Your task to perform on an android device: Open the stopwatch Image 0: 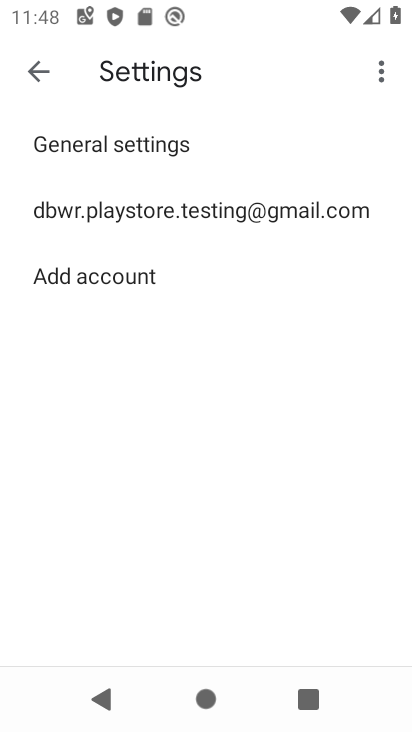
Step 0: press home button
Your task to perform on an android device: Open the stopwatch Image 1: 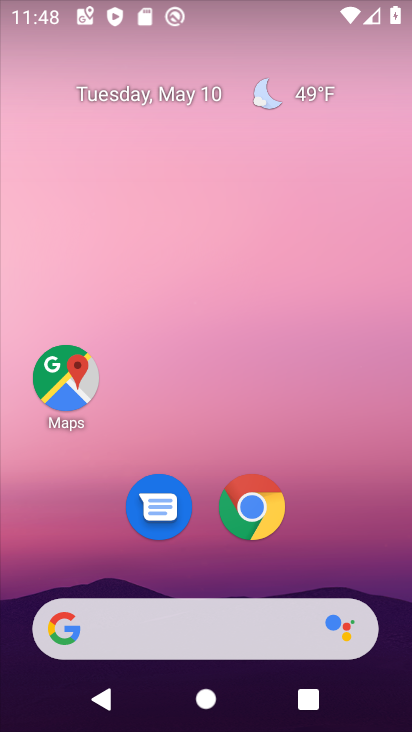
Step 1: drag from (211, 564) to (205, 41)
Your task to perform on an android device: Open the stopwatch Image 2: 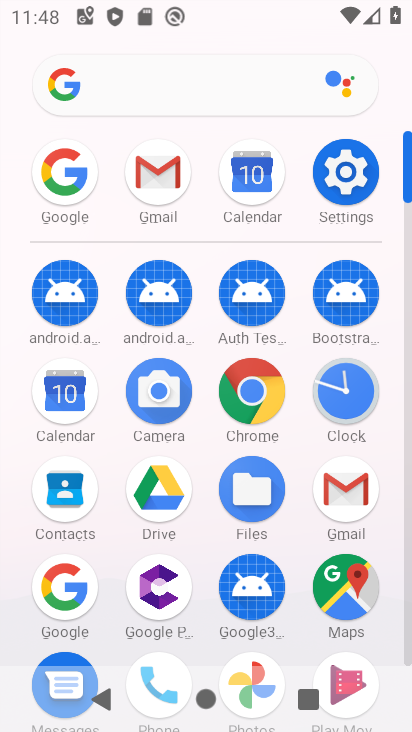
Step 2: click (347, 393)
Your task to perform on an android device: Open the stopwatch Image 3: 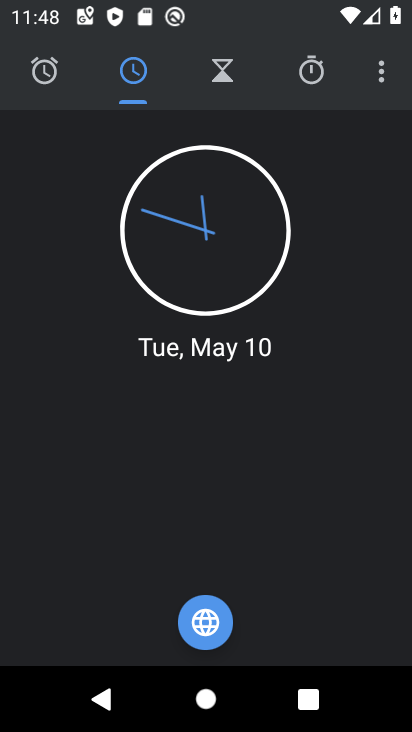
Step 3: click (371, 73)
Your task to perform on an android device: Open the stopwatch Image 4: 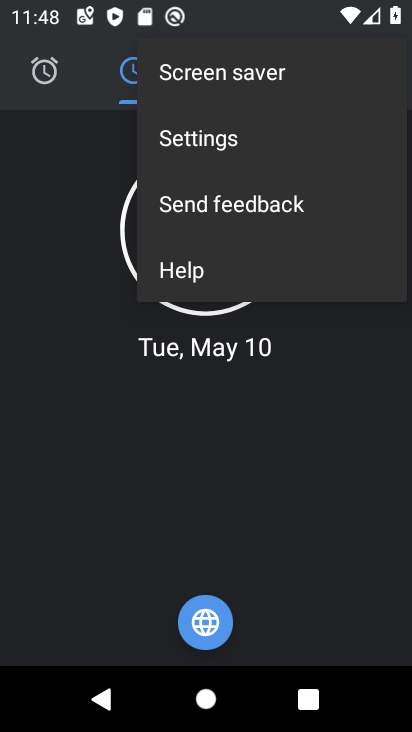
Step 4: click (207, 133)
Your task to perform on an android device: Open the stopwatch Image 5: 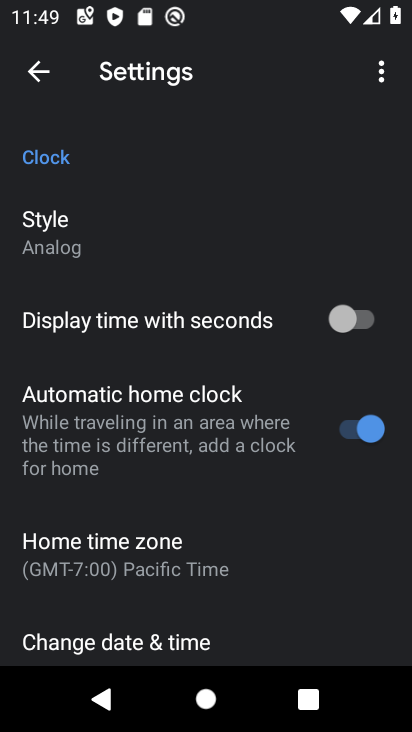
Step 5: press back button
Your task to perform on an android device: Open the stopwatch Image 6: 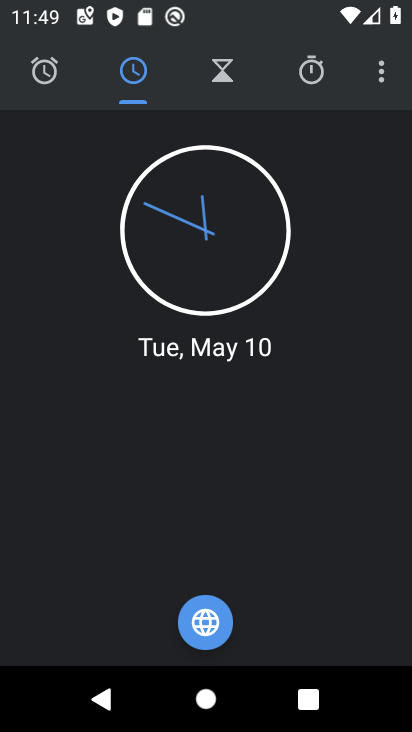
Step 6: click (320, 74)
Your task to perform on an android device: Open the stopwatch Image 7: 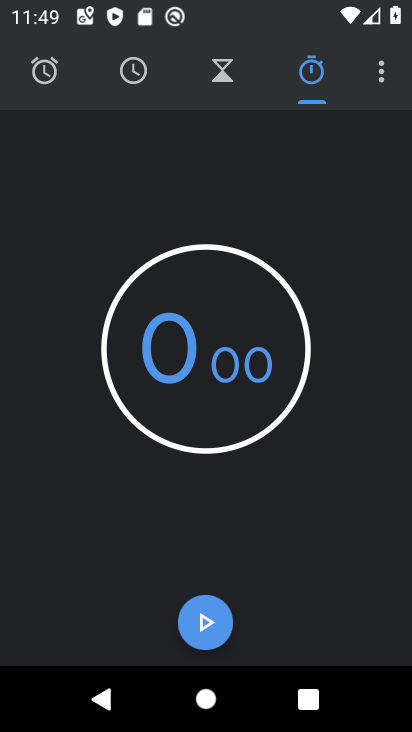
Step 7: click (210, 627)
Your task to perform on an android device: Open the stopwatch Image 8: 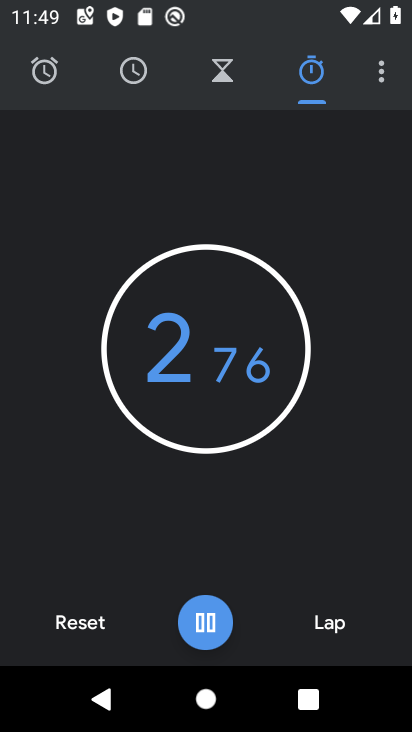
Step 8: task complete